Your task to perform on an android device: turn on location history Image 0: 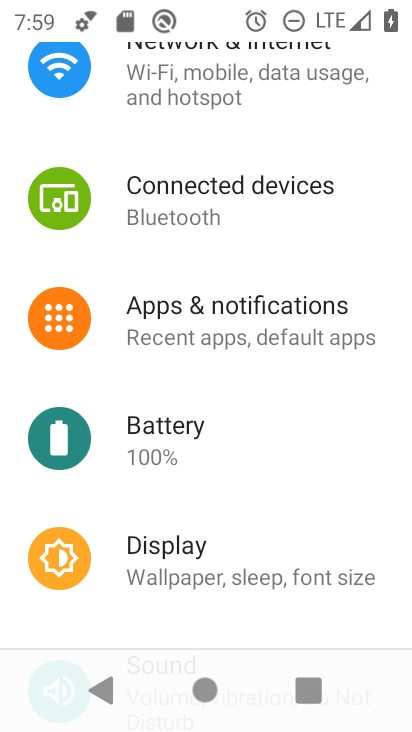
Step 0: drag from (235, 522) to (207, 274)
Your task to perform on an android device: turn on location history Image 1: 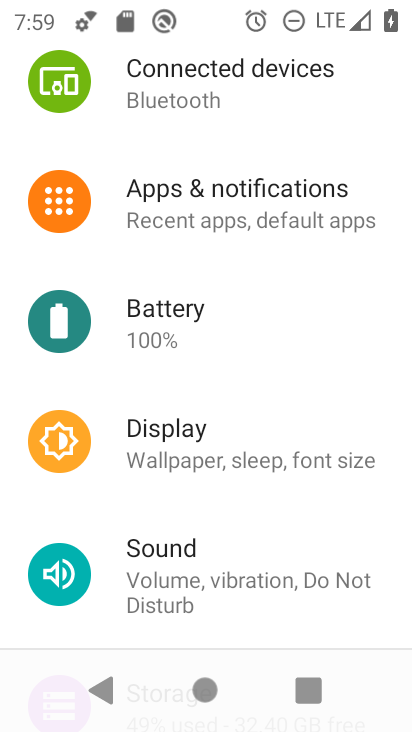
Step 1: drag from (238, 492) to (201, 251)
Your task to perform on an android device: turn on location history Image 2: 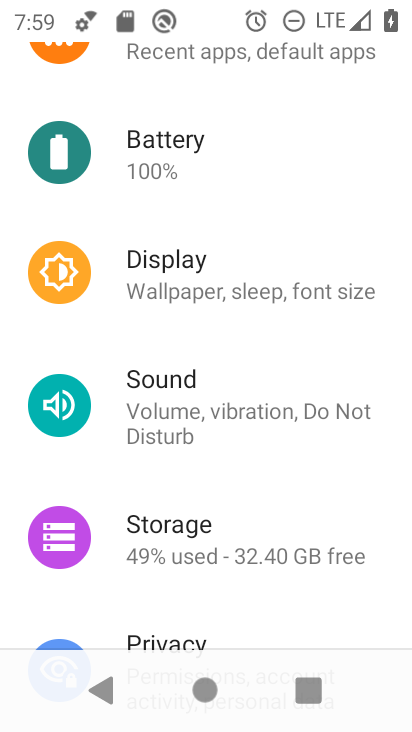
Step 2: drag from (255, 501) to (193, 113)
Your task to perform on an android device: turn on location history Image 3: 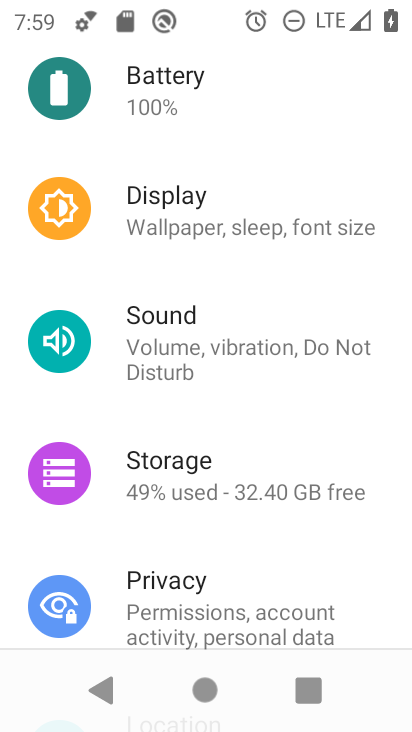
Step 3: drag from (227, 502) to (166, 259)
Your task to perform on an android device: turn on location history Image 4: 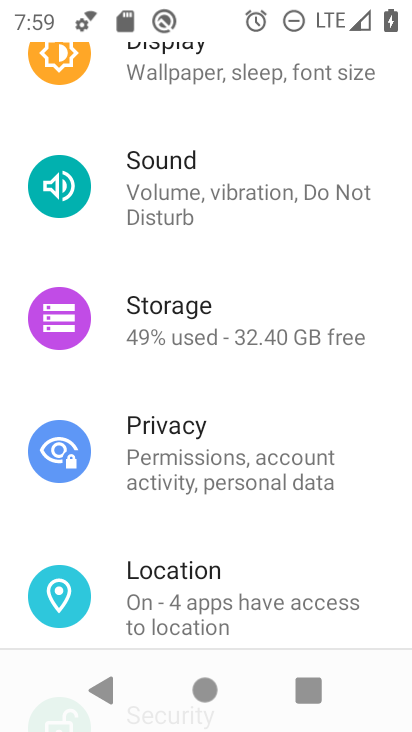
Step 4: click (164, 565)
Your task to perform on an android device: turn on location history Image 5: 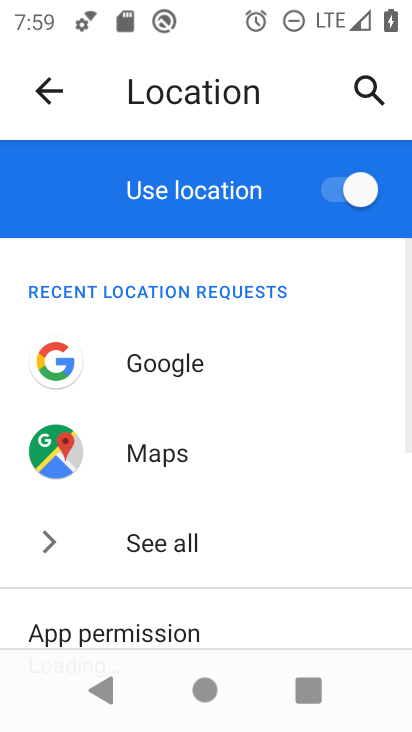
Step 5: drag from (228, 488) to (110, 145)
Your task to perform on an android device: turn on location history Image 6: 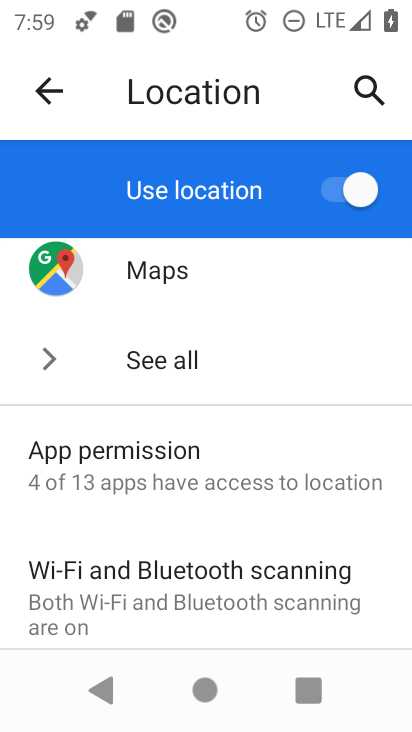
Step 6: drag from (226, 515) to (190, 298)
Your task to perform on an android device: turn on location history Image 7: 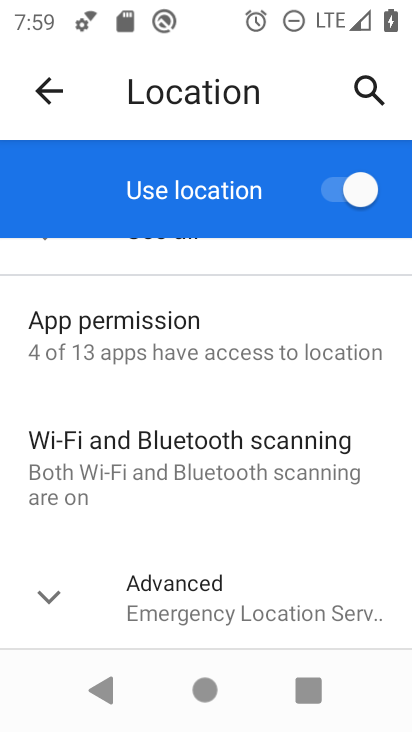
Step 7: drag from (221, 541) to (178, 251)
Your task to perform on an android device: turn on location history Image 8: 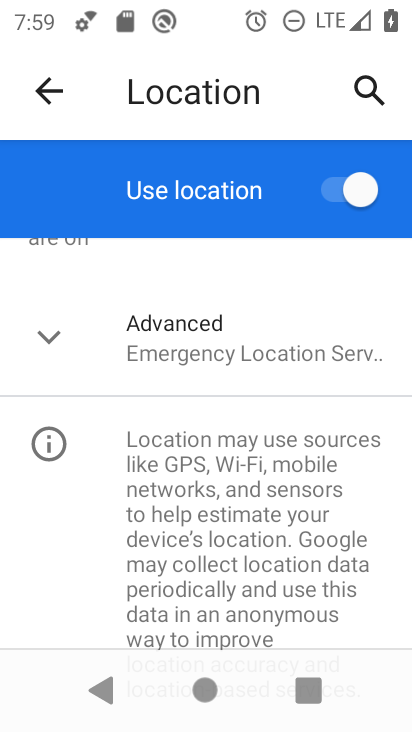
Step 8: click (45, 376)
Your task to perform on an android device: turn on location history Image 9: 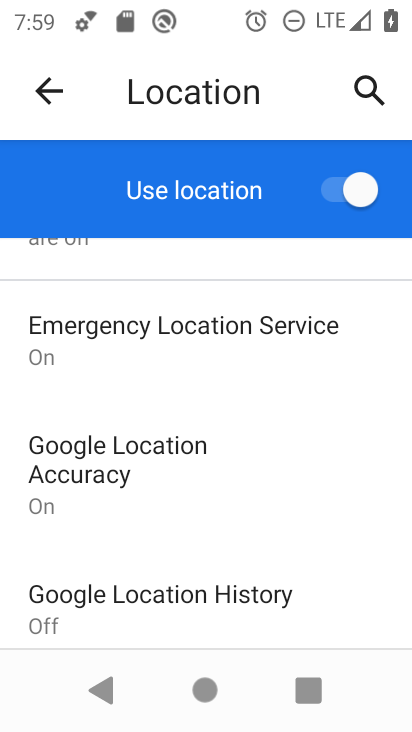
Step 9: click (182, 592)
Your task to perform on an android device: turn on location history Image 10: 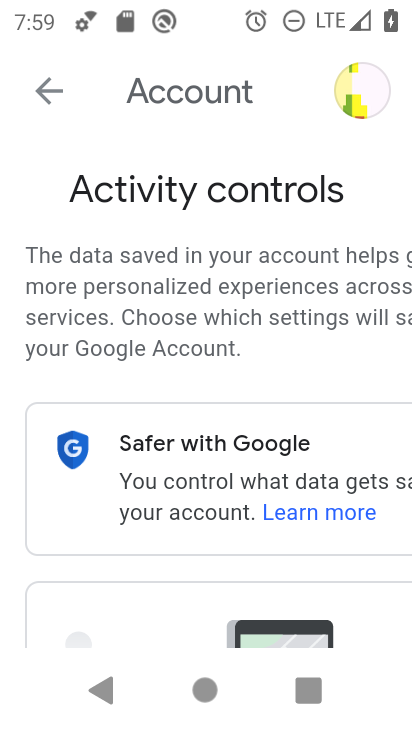
Step 10: task complete